Your task to perform on an android device: Go to CNN.com Image 0: 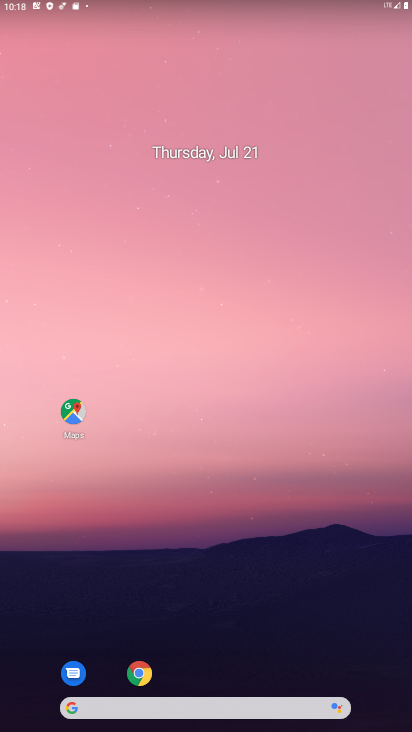
Step 0: click (144, 665)
Your task to perform on an android device: Go to CNN.com Image 1: 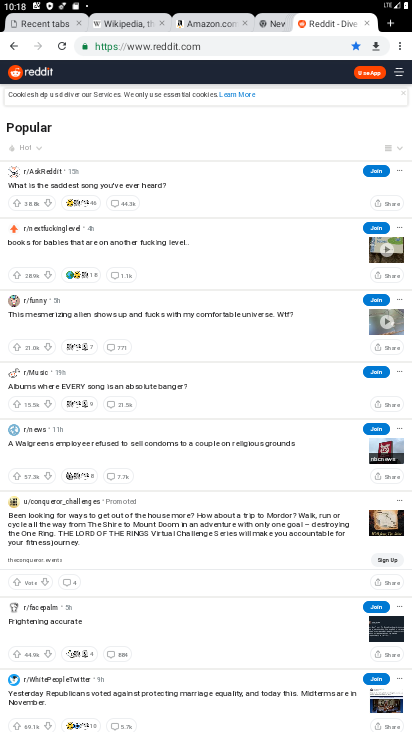
Step 1: click (388, 22)
Your task to perform on an android device: Go to CNN.com Image 2: 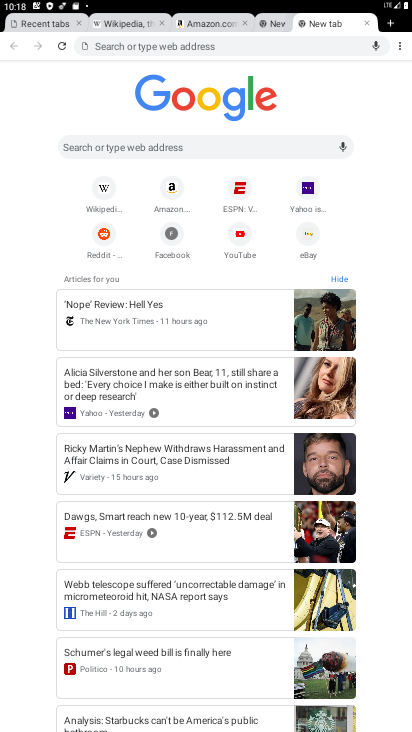
Step 2: click (220, 139)
Your task to perform on an android device: Go to CNN.com Image 3: 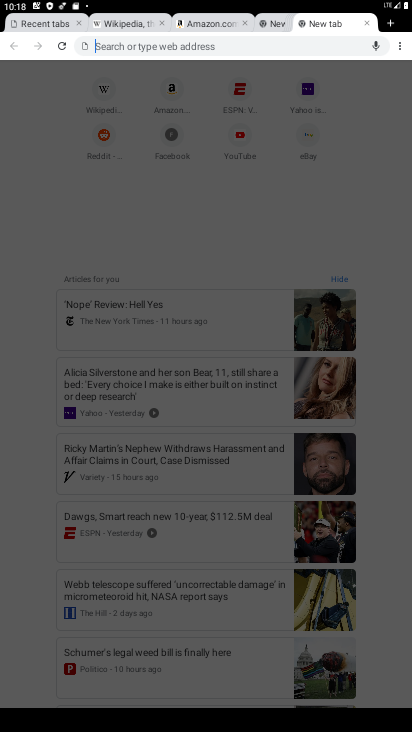
Step 3: type "CNN.com"
Your task to perform on an android device: Go to CNN.com Image 4: 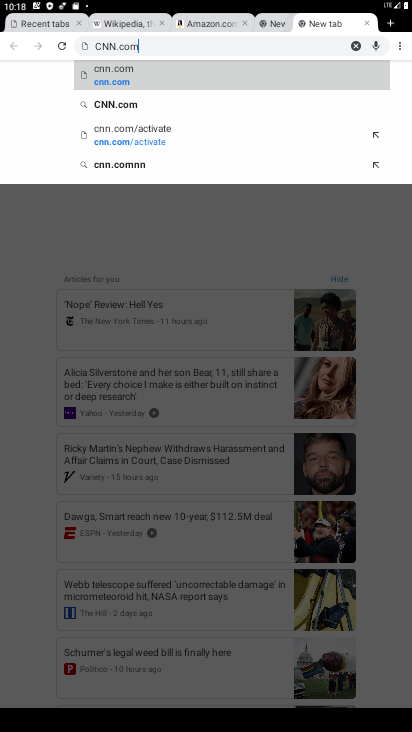
Step 4: type ""
Your task to perform on an android device: Go to CNN.com Image 5: 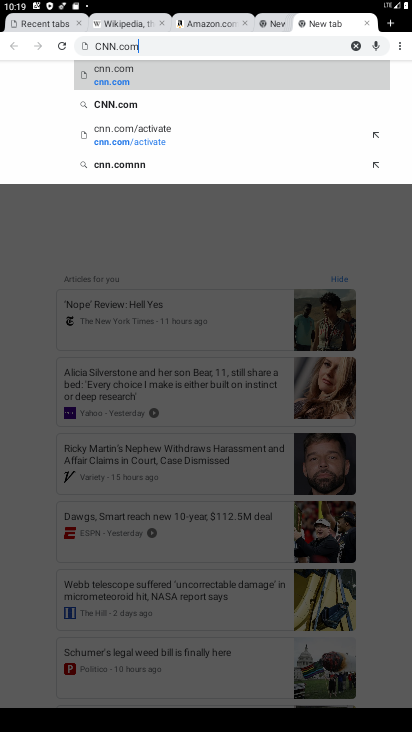
Step 5: click (221, 74)
Your task to perform on an android device: Go to CNN.com Image 6: 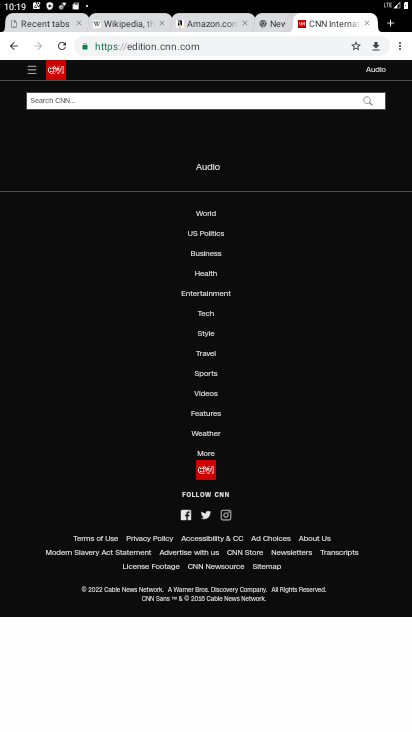
Step 6: task complete